Your task to perform on an android device: What's on my calendar tomorrow? Image 0: 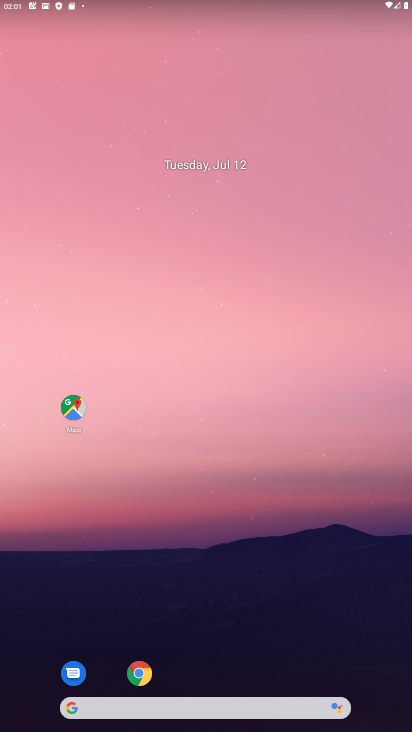
Step 0: press home button
Your task to perform on an android device: What's on my calendar tomorrow? Image 1: 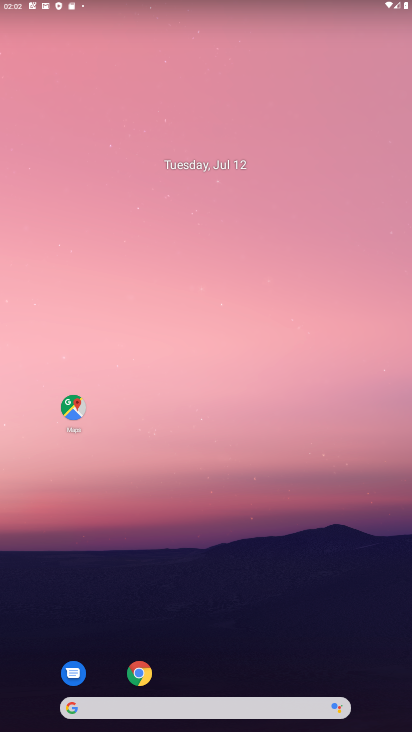
Step 1: drag from (282, 395) to (258, 66)
Your task to perform on an android device: What's on my calendar tomorrow? Image 2: 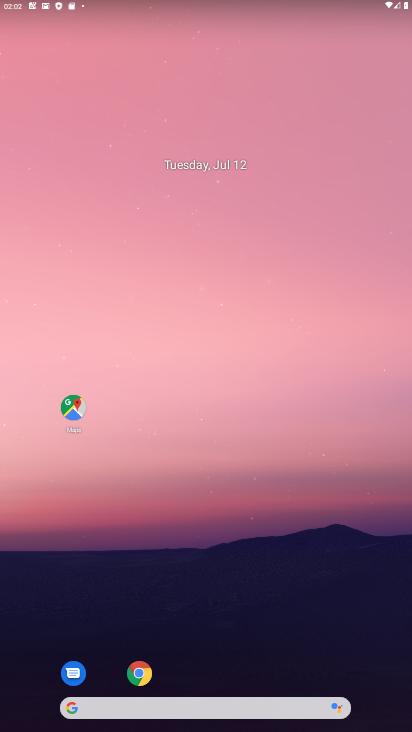
Step 2: drag from (229, 543) to (389, 344)
Your task to perform on an android device: What's on my calendar tomorrow? Image 3: 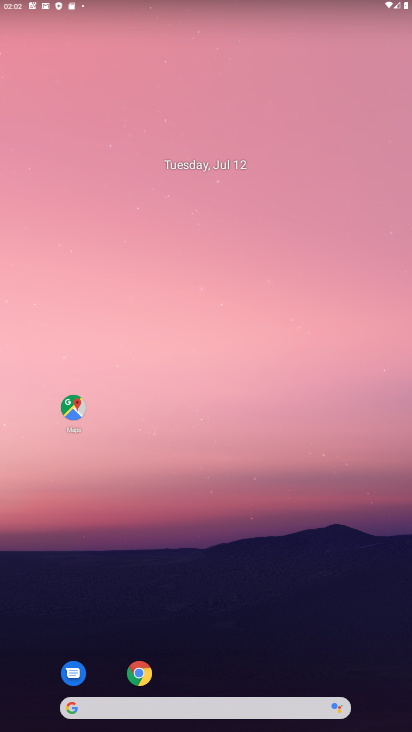
Step 3: drag from (266, 662) to (240, 79)
Your task to perform on an android device: What's on my calendar tomorrow? Image 4: 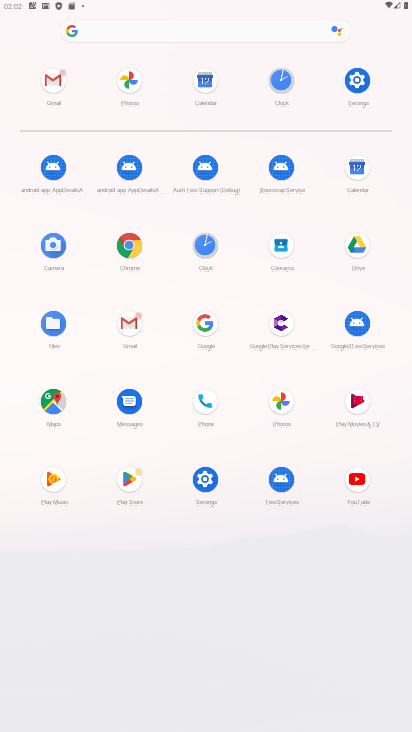
Step 4: click (356, 161)
Your task to perform on an android device: What's on my calendar tomorrow? Image 5: 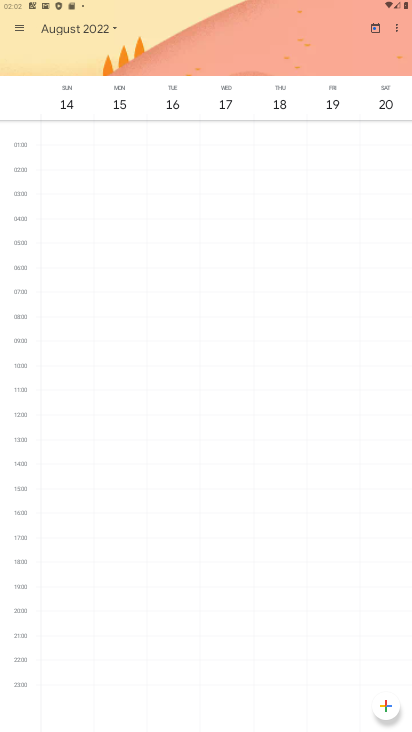
Step 5: click (92, 26)
Your task to perform on an android device: What's on my calendar tomorrow? Image 6: 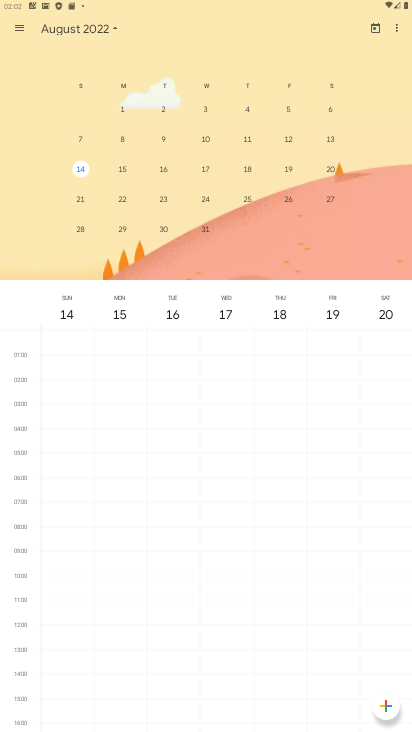
Step 6: drag from (86, 143) to (364, 157)
Your task to perform on an android device: What's on my calendar tomorrow? Image 7: 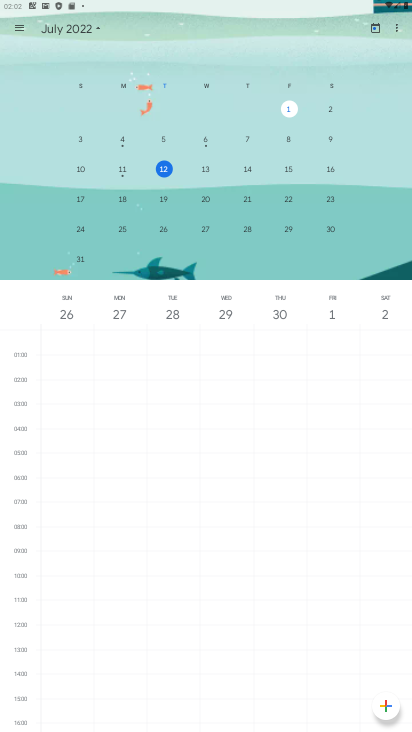
Step 7: click (200, 169)
Your task to perform on an android device: What's on my calendar tomorrow? Image 8: 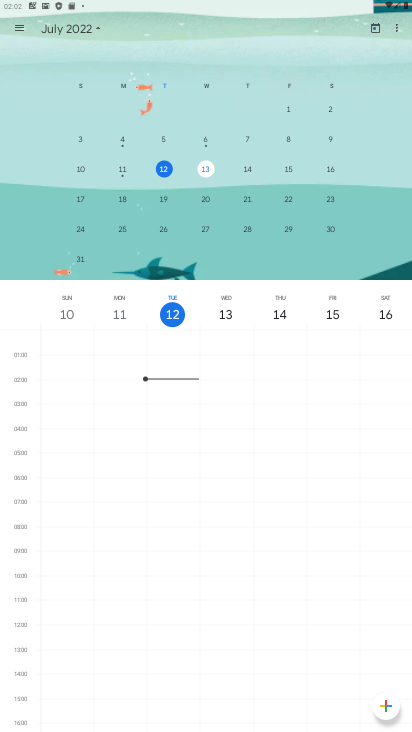
Step 8: click (24, 26)
Your task to perform on an android device: What's on my calendar tomorrow? Image 9: 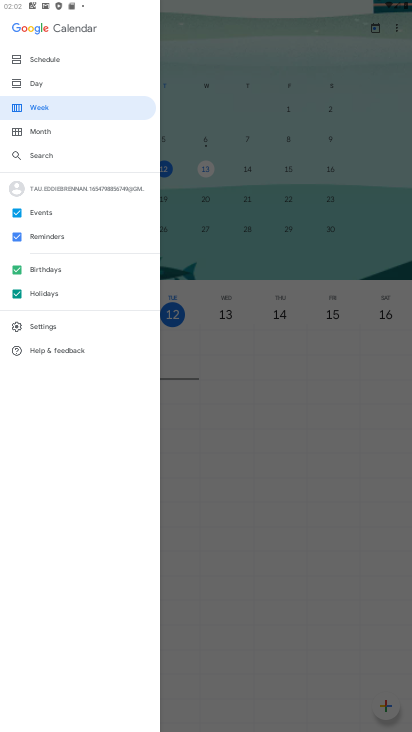
Step 9: click (66, 85)
Your task to perform on an android device: What's on my calendar tomorrow? Image 10: 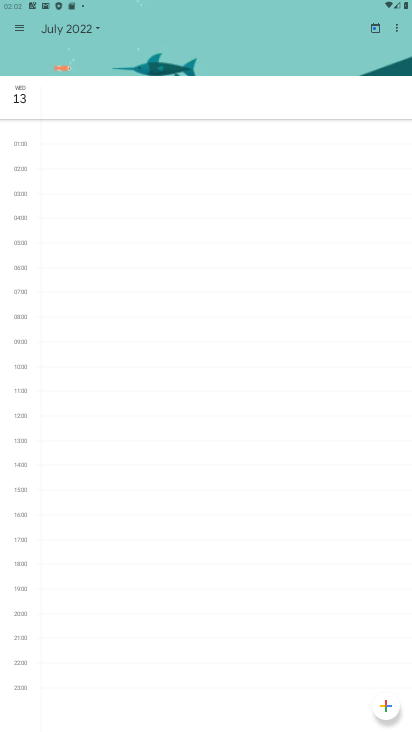
Step 10: task complete